Your task to perform on an android device: Open Google Maps and go to "Timeline" Image 0: 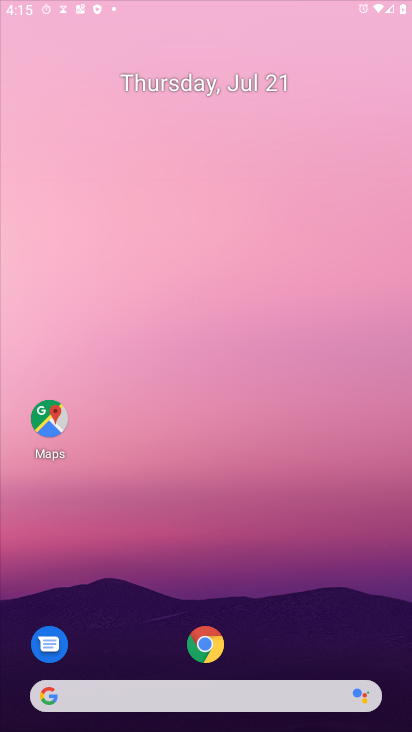
Step 0: press home button
Your task to perform on an android device: Open Google Maps and go to "Timeline" Image 1: 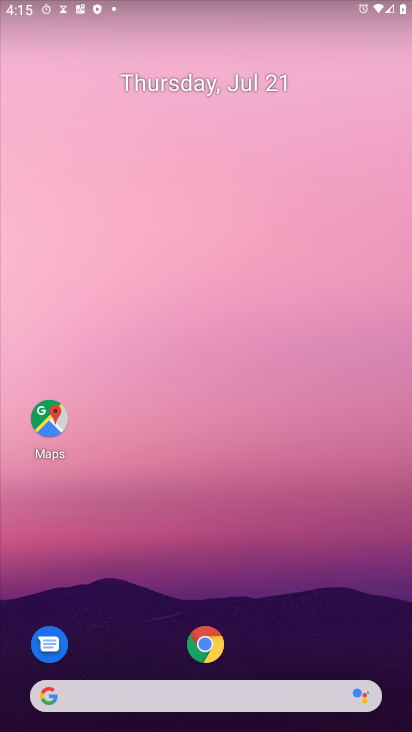
Step 1: drag from (289, 649) to (213, 127)
Your task to perform on an android device: Open Google Maps and go to "Timeline" Image 2: 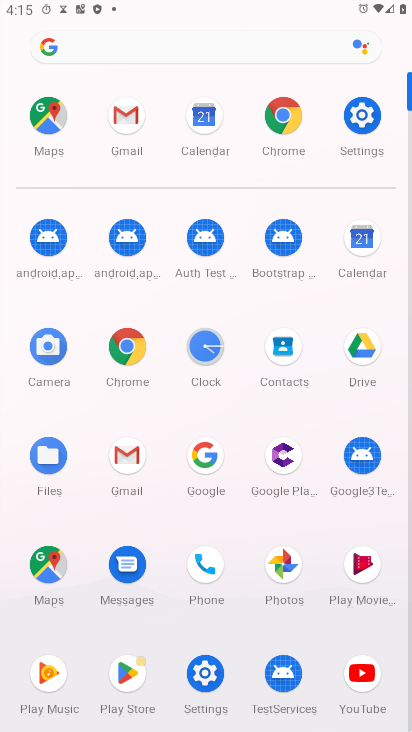
Step 2: click (41, 114)
Your task to perform on an android device: Open Google Maps and go to "Timeline" Image 3: 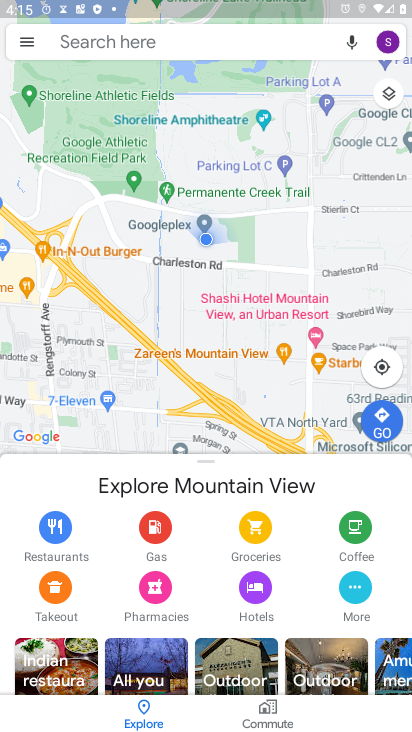
Step 3: click (18, 46)
Your task to perform on an android device: Open Google Maps and go to "Timeline" Image 4: 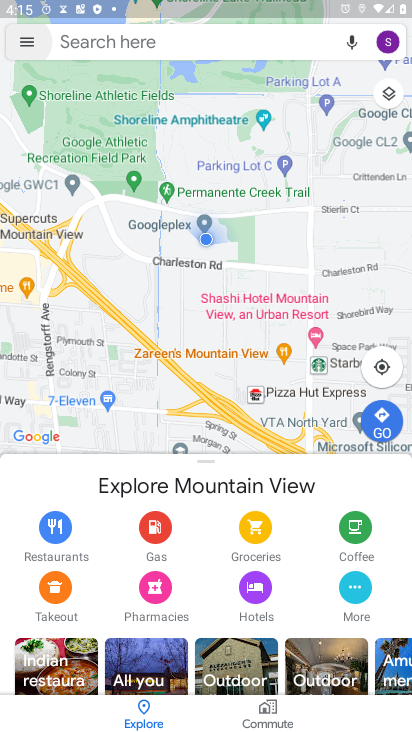
Step 4: click (18, 46)
Your task to perform on an android device: Open Google Maps and go to "Timeline" Image 5: 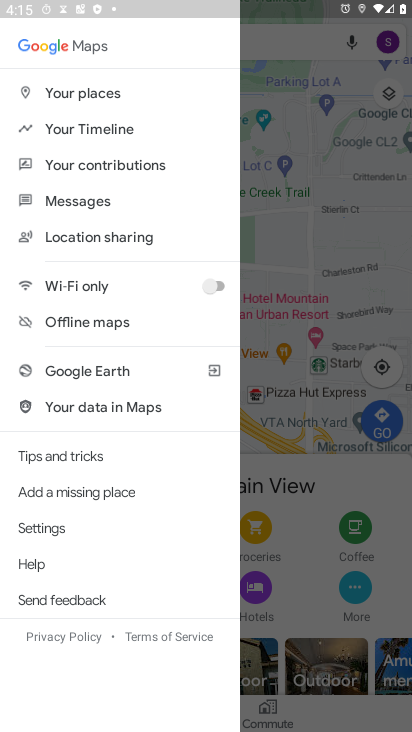
Step 5: click (103, 128)
Your task to perform on an android device: Open Google Maps and go to "Timeline" Image 6: 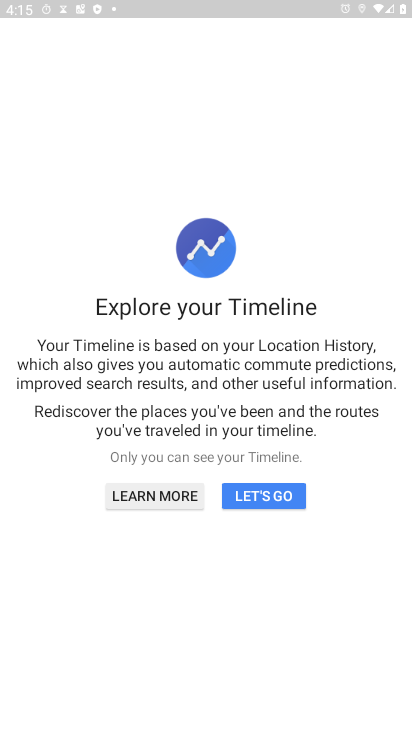
Step 6: click (265, 493)
Your task to perform on an android device: Open Google Maps and go to "Timeline" Image 7: 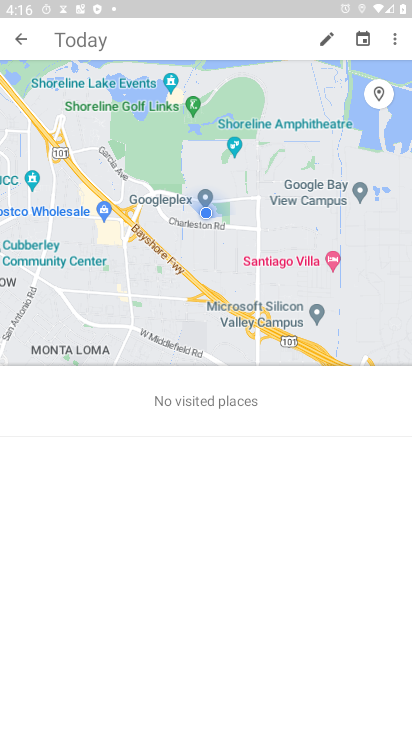
Step 7: task complete